Your task to perform on an android device: turn notification dots on Image 0: 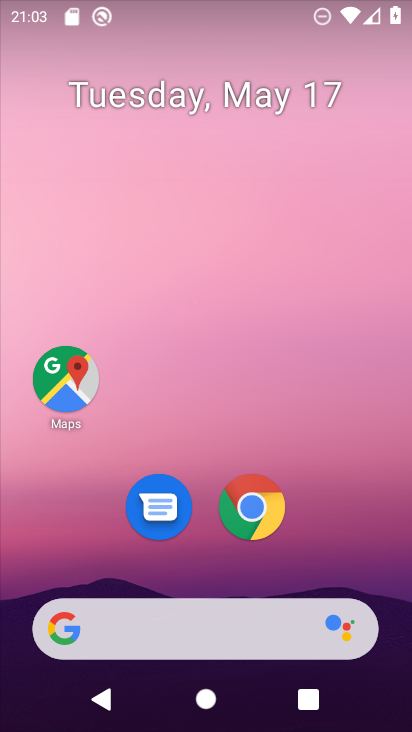
Step 0: drag from (357, 555) to (308, 7)
Your task to perform on an android device: turn notification dots on Image 1: 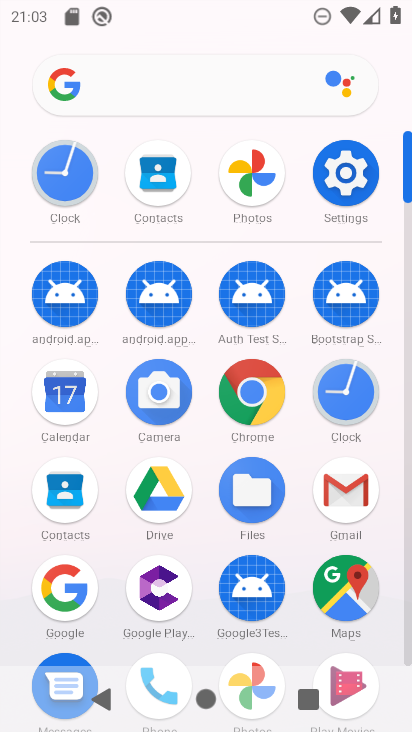
Step 1: click (347, 172)
Your task to perform on an android device: turn notification dots on Image 2: 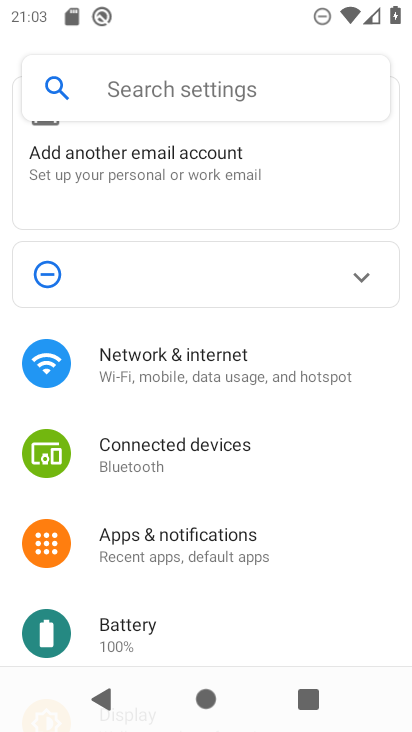
Step 2: click (163, 549)
Your task to perform on an android device: turn notification dots on Image 3: 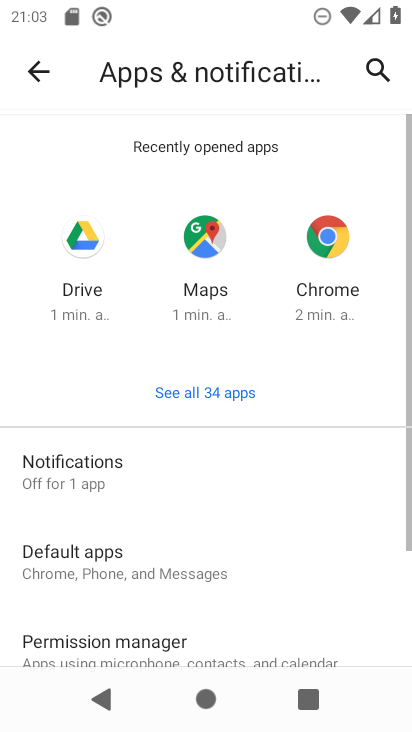
Step 3: click (50, 473)
Your task to perform on an android device: turn notification dots on Image 4: 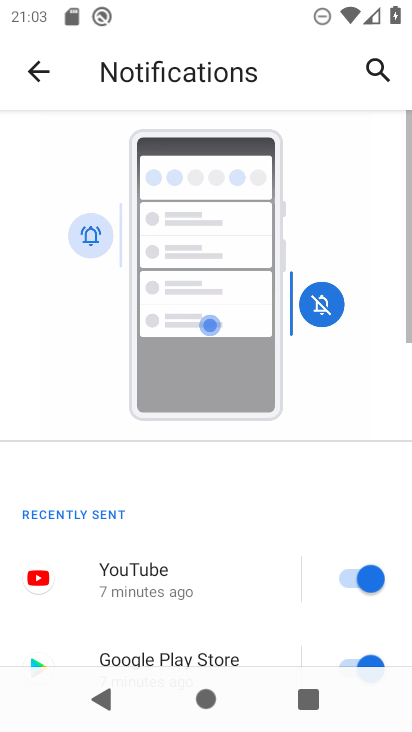
Step 4: drag from (134, 535) to (117, 118)
Your task to perform on an android device: turn notification dots on Image 5: 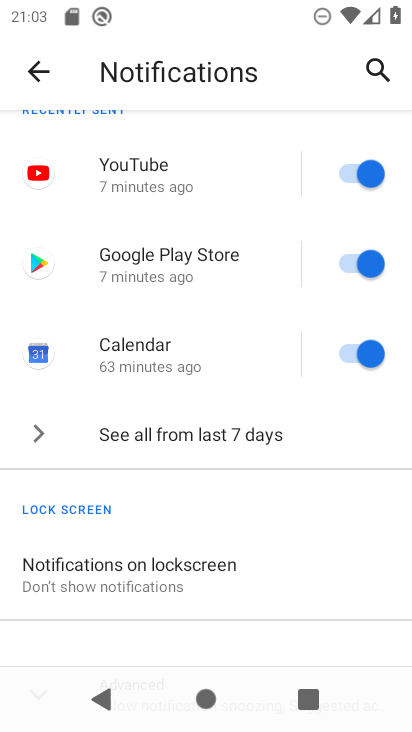
Step 5: drag from (153, 451) to (123, 187)
Your task to perform on an android device: turn notification dots on Image 6: 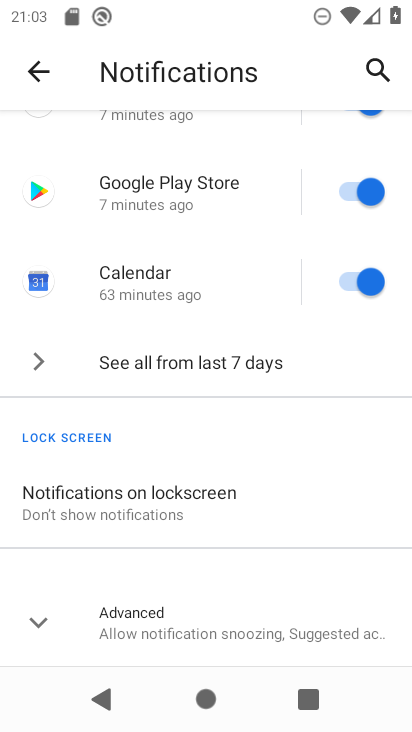
Step 6: click (34, 628)
Your task to perform on an android device: turn notification dots on Image 7: 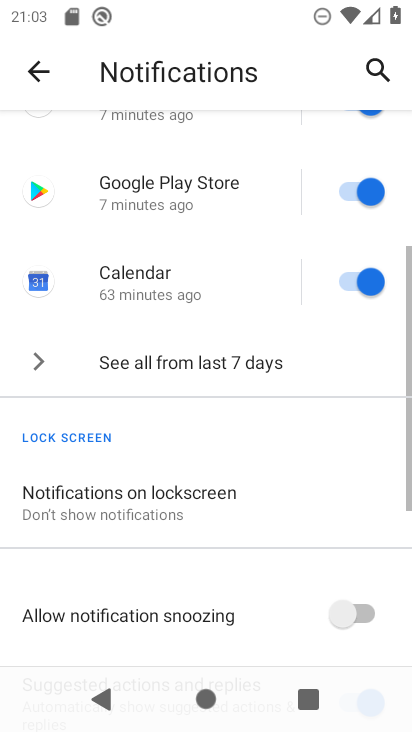
Step 7: drag from (72, 621) to (42, 226)
Your task to perform on an android device: turn notification dots on Image 8: 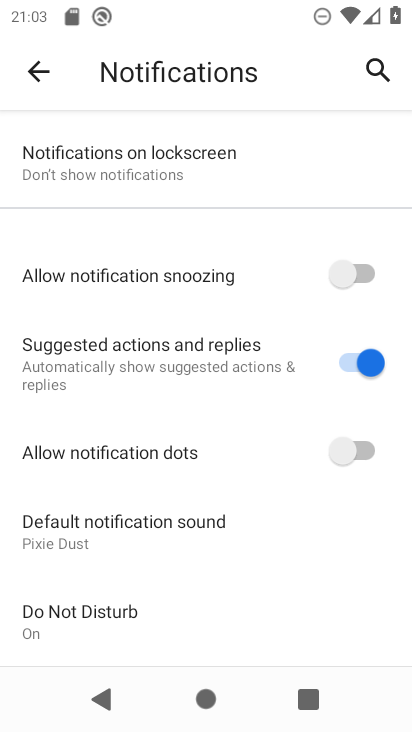
Step 8: click (360, 461)
Your task to perform on an android device: turn notification dots on Image 9: 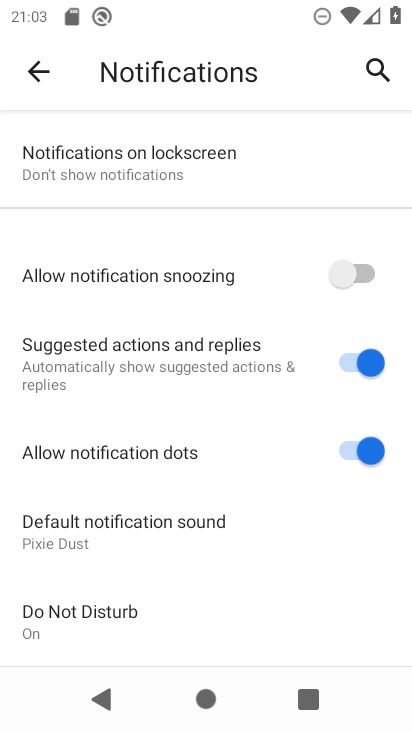
Step 9: task complete